Your task to perform on an android device: visit the assistant section in the google photos Image 0: 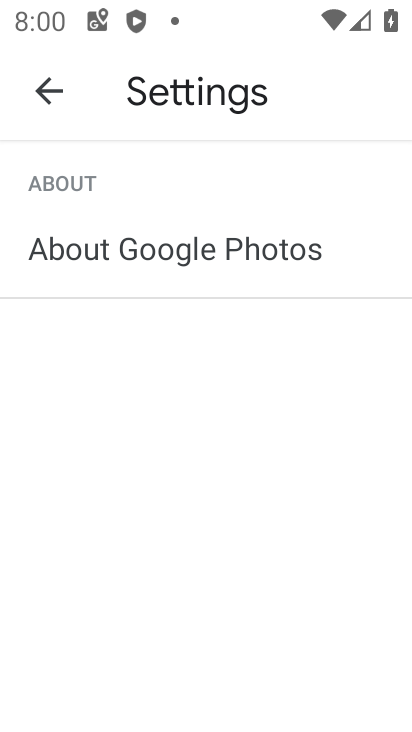
Step 0: press home button
Your task to perform on an android device: visit the assistant section in the google photos Image 1: 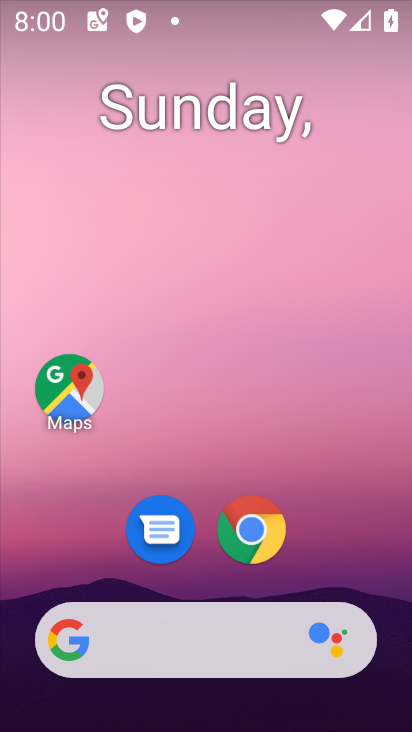
Step 1: drag from (365, 548) to (377, 112)
Your task to perform on an android device: visit the assistant section in the google photos Image 2: 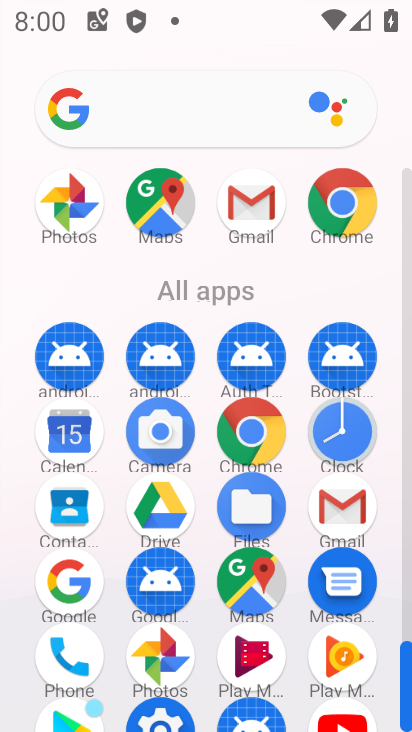
Step 2: click (154, 661)
Your task to perform on an android device: visit the assistant section in the google photos Image 3: 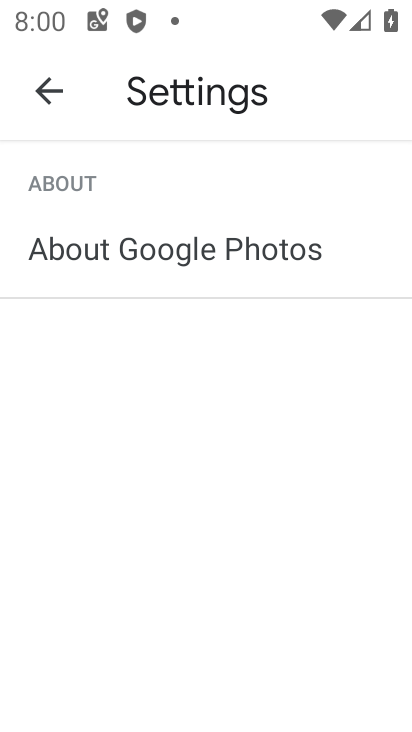
Step 3: click (42, 86)
Your task to perform on an android device: visit the assistant section in the google photos Image 4: 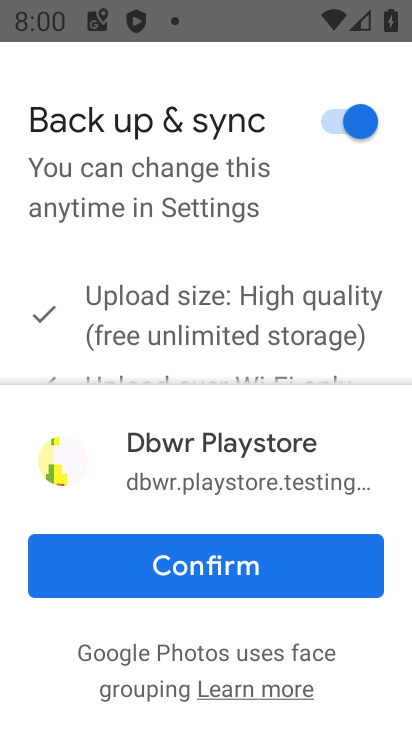
Step 4: click (243, 570)
Your task to perform on an android device: visit the assistant section in the google photos Image 5: 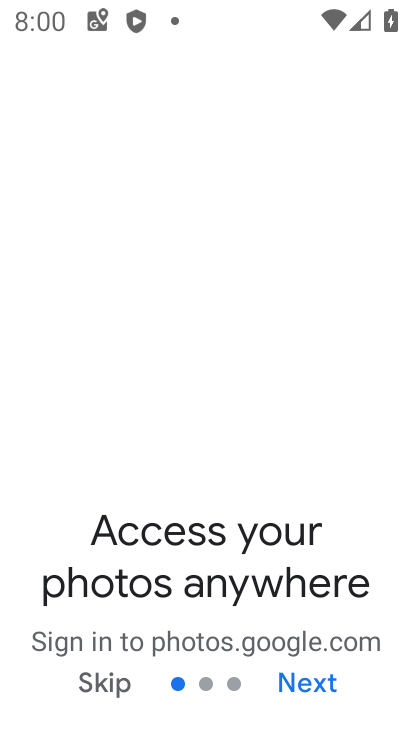
Step 5: click (294, 691)
Your task to perform on an android device: visit the assistant section in the google photos Image 6: 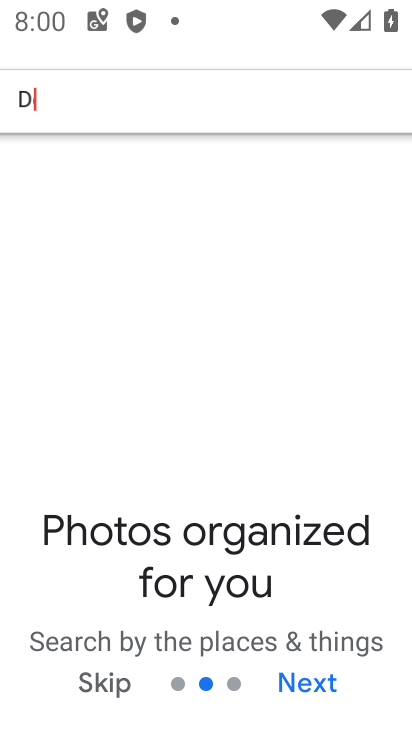
Step 6: click (294, 691)
Your task to perform on an android device: visit the assistant section in the google photos Image 7: 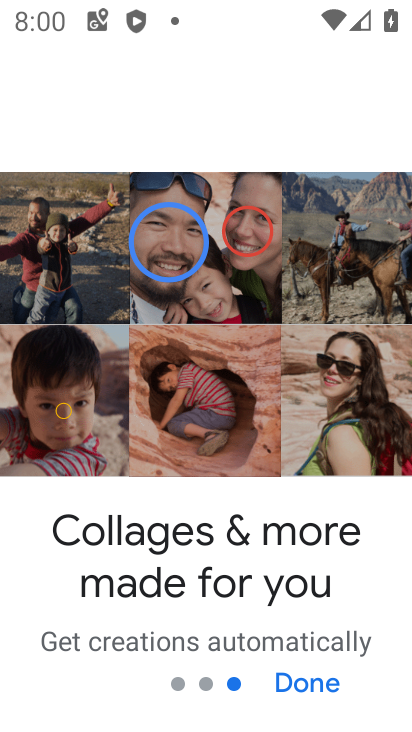
Step 7: click (294, 691)
Your task to perform on an android device: visit the assistant section in the google photos Image 8: 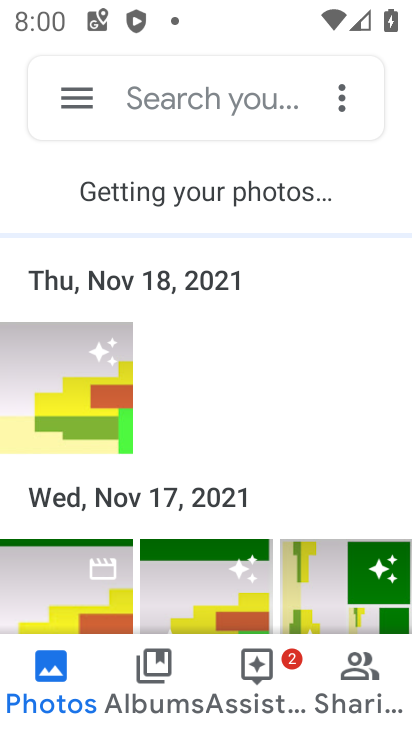
Step 8: drag from (260, 603) to (270, 376)
Your task to perform on an android device: visit the assistant section in the google photos Image 9: 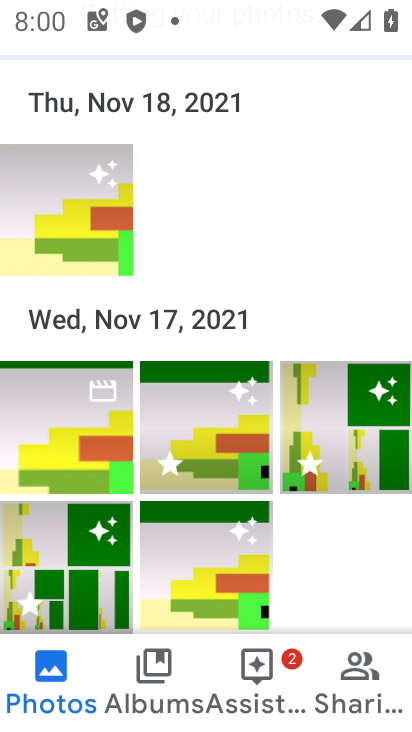
Step 9: click (246, 719)
Your task to perform on an android device: visit the assistant section in the google photos Image 10: 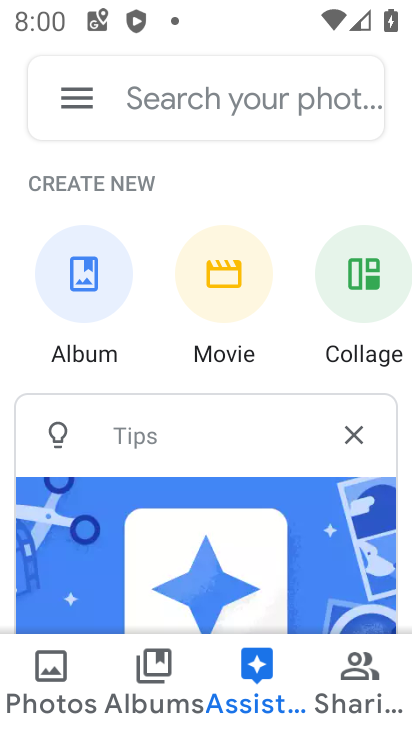
Step 10: task complete